Your task to perform on an android device: When is my next appointment? Image 0: 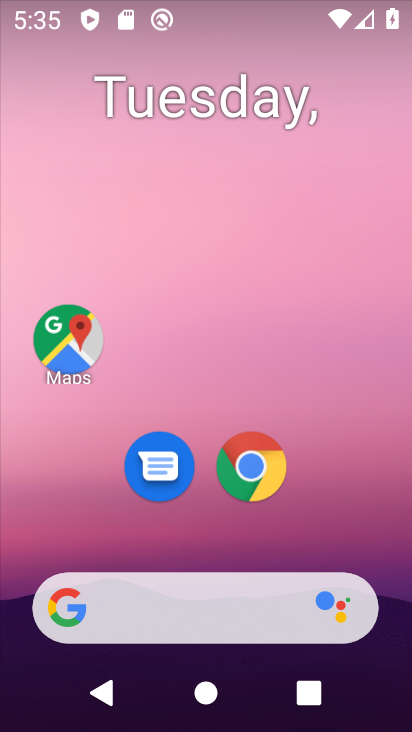
Step 0: drag from (378, 699) to (397, 525)
Your task to perform on an android device: When is my next appointment? Image 1: 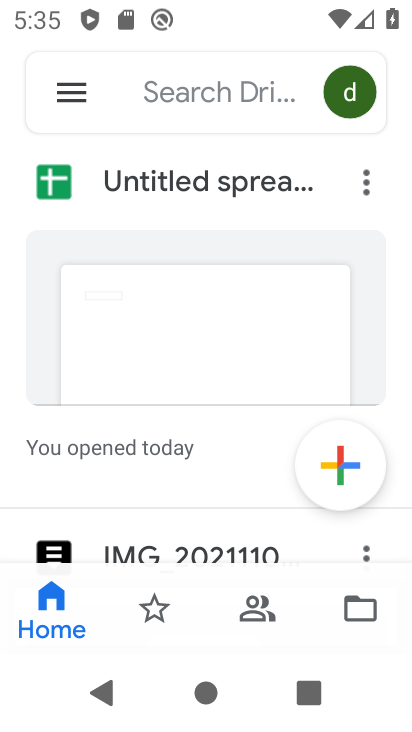
Step 1: press home button
Your task to perform on an android device: When is my next appointment? Image 2: 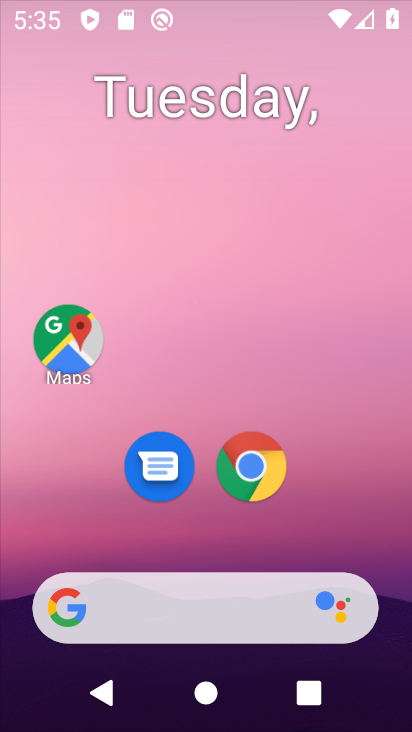
Step 2: drag from (375, 679) to (361, 101)
Your task to perform on an android device: When is my next appointment? Image 3: 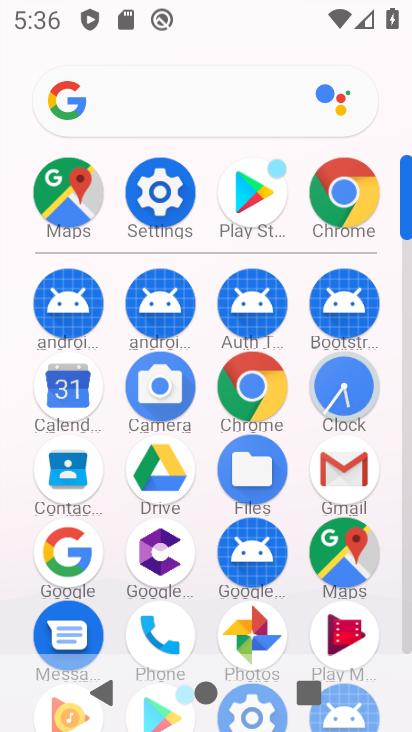
Step 3: click (401, 591)
Your task to perform on an android device: When is my next appointment? Image 4: 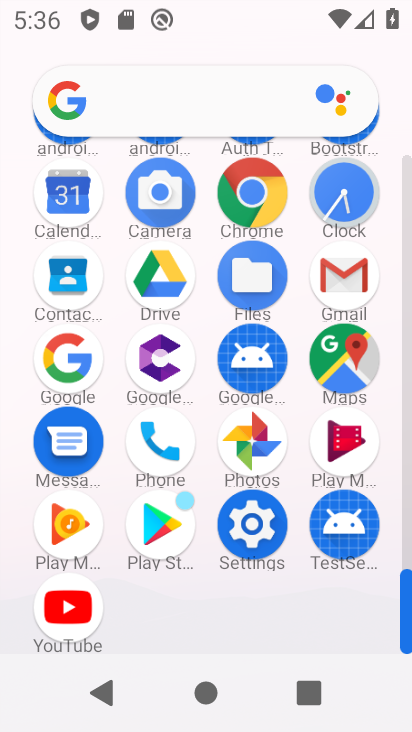
Step 4: click (50, 194)
Your task to perform on an android device: When is my next appointment? Image 5: 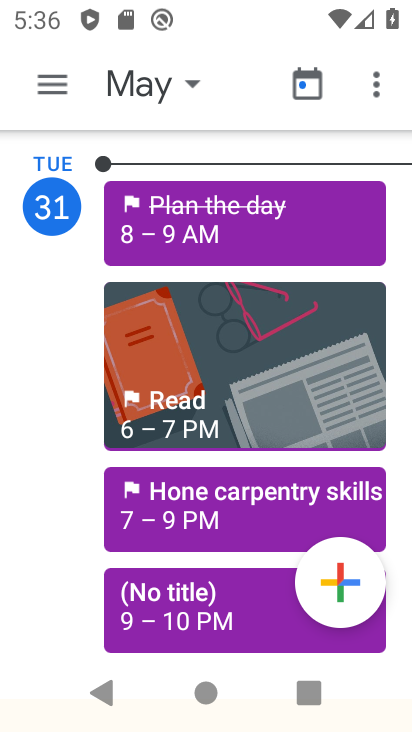
Step 5: task complete